Your task to perform on an android device: Open Yahoo.com Image 0: 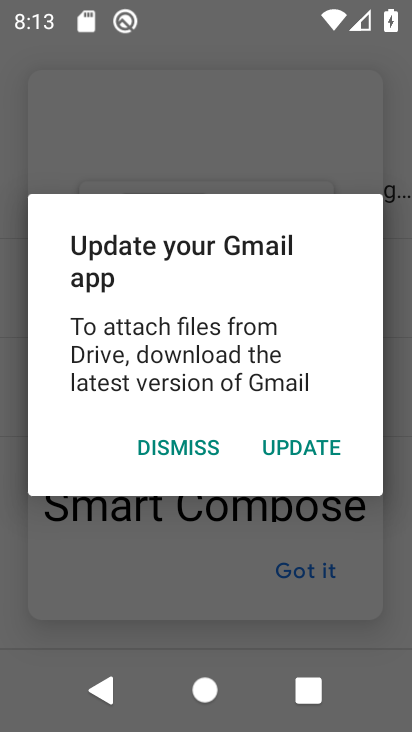
Step 0: press home button
Your task to perform on an android device: Open Yahoo.com Image 1: 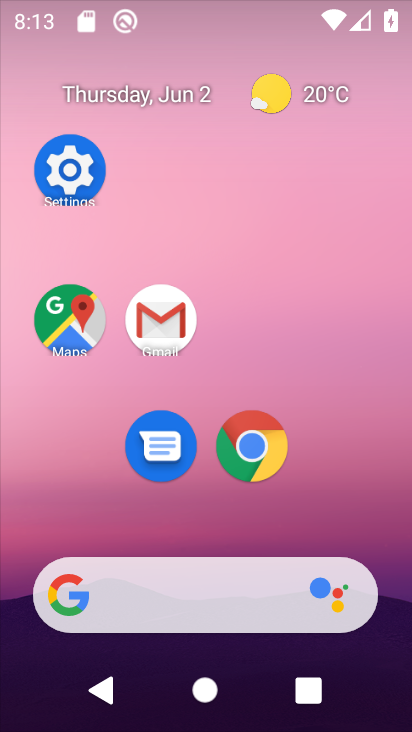
Step 1: click (273, 456)
Your task to perform on an android device: Open Yahoo.com Image 2: 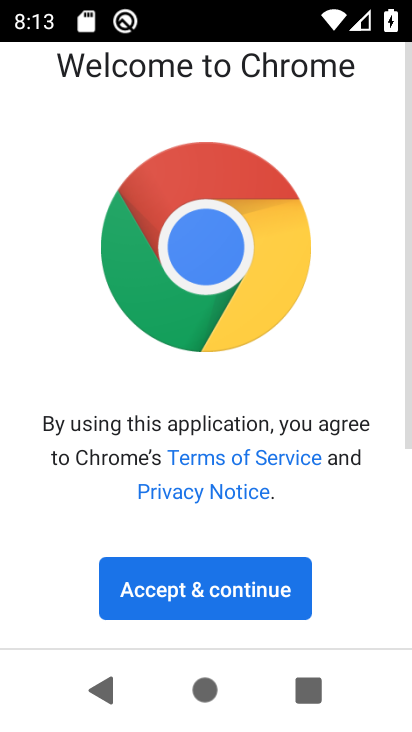
Step 2: click (265, 594)
Your task to perform on an android device: Open Yahoo.com Image 3: 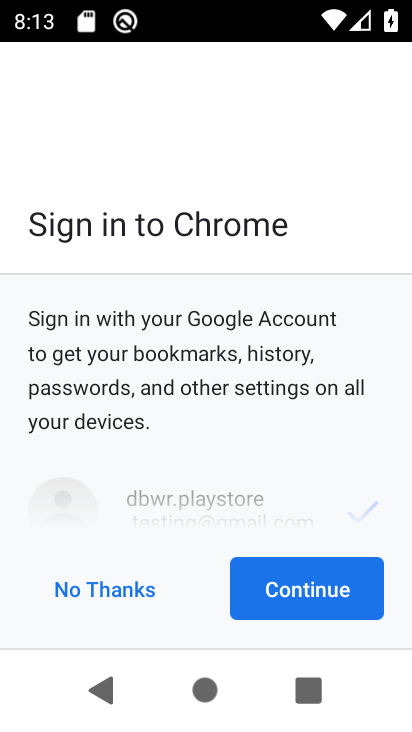
Step 3: click (265, 594)
Your task to perform on an android device: Open Yahoo.com Image 4: 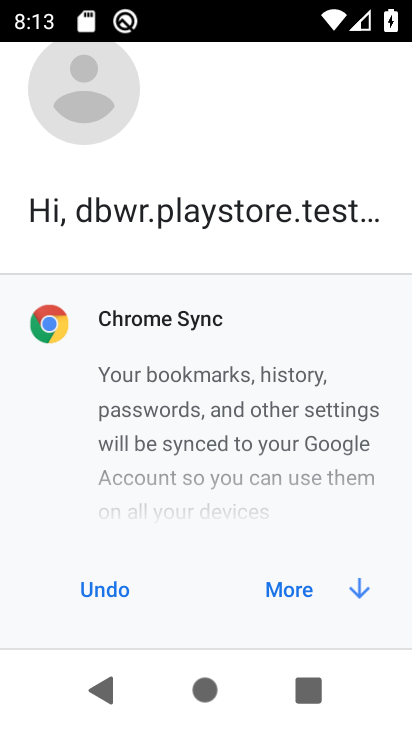
Step 4: click (265, 594)
Your task to perform on an android device: Open Yahoo.com Image 5: 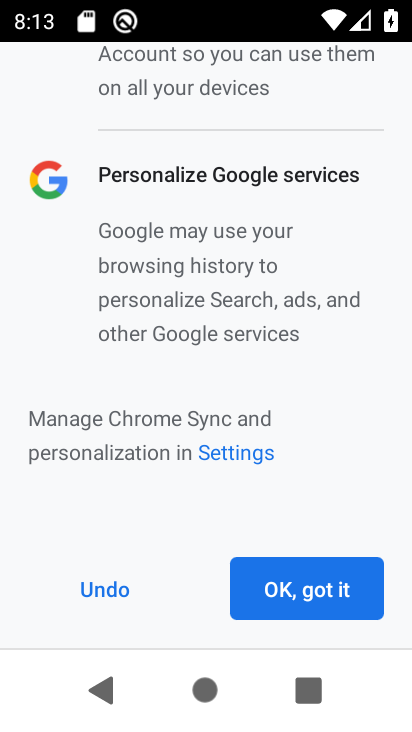
Step 5: click (265, 594)
Your task to perform on an android device: Open Yahoo.com Image 6: 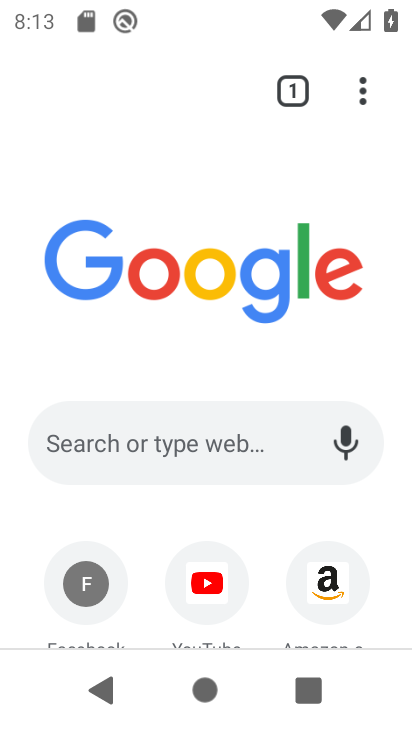
Step 6: drag from (279, 537) to (308, 117)
Your task to perform on an android device: Open Yahoo.com Image 7: 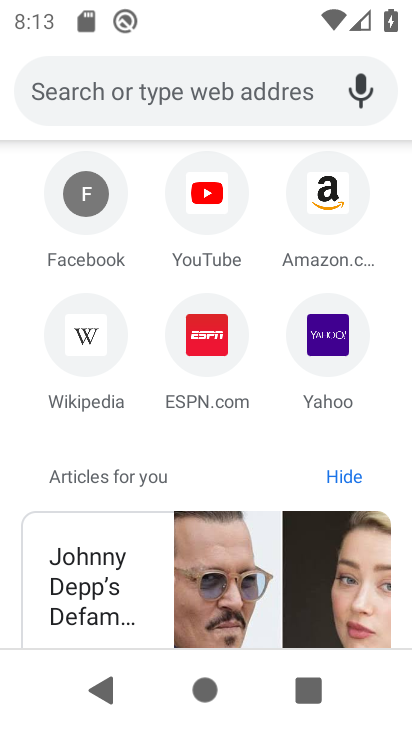
Step 7: click (331, 316)
Your task to perform on an android device: Open Yahoo.com Image 8: 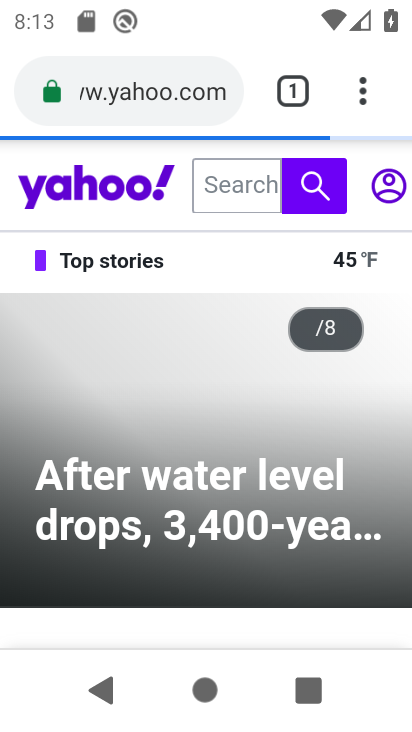
Step 8: task complete